Your task to perform on an android device: What time is it in Berlin? Image 0: 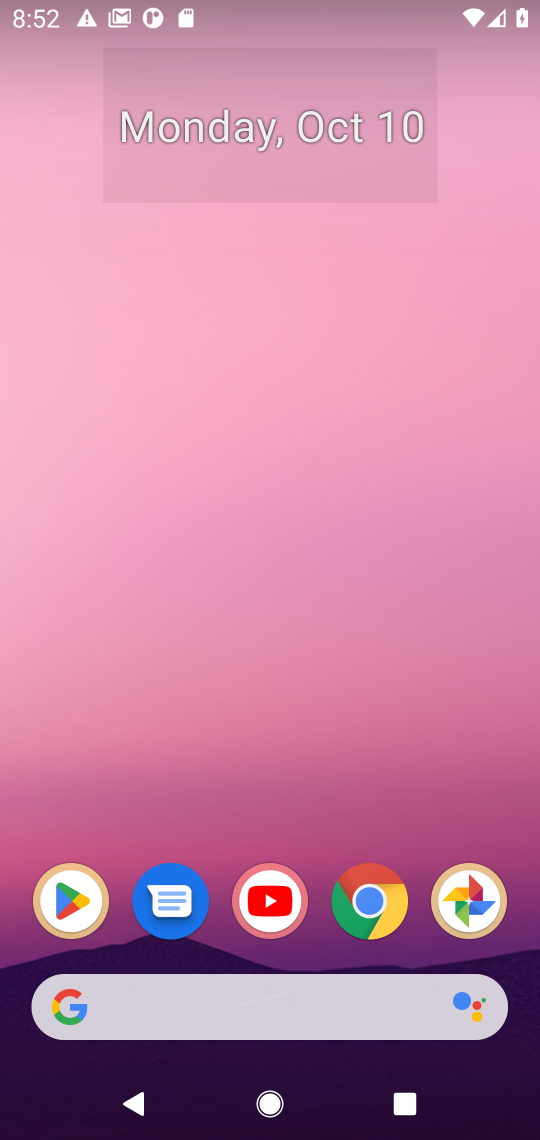
Step 0: press home button
Your task to perform on an android device: What time is it in Berlin? Image 1: 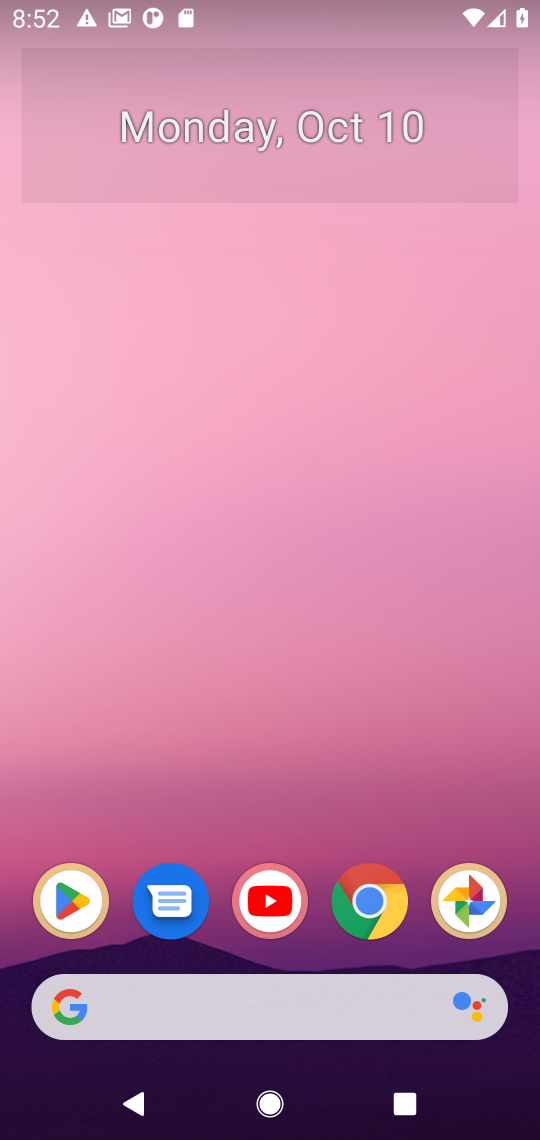
Step 1: click (275, 1009)
Your task to perform on an android device: What time is it in Berlin? Image 2: 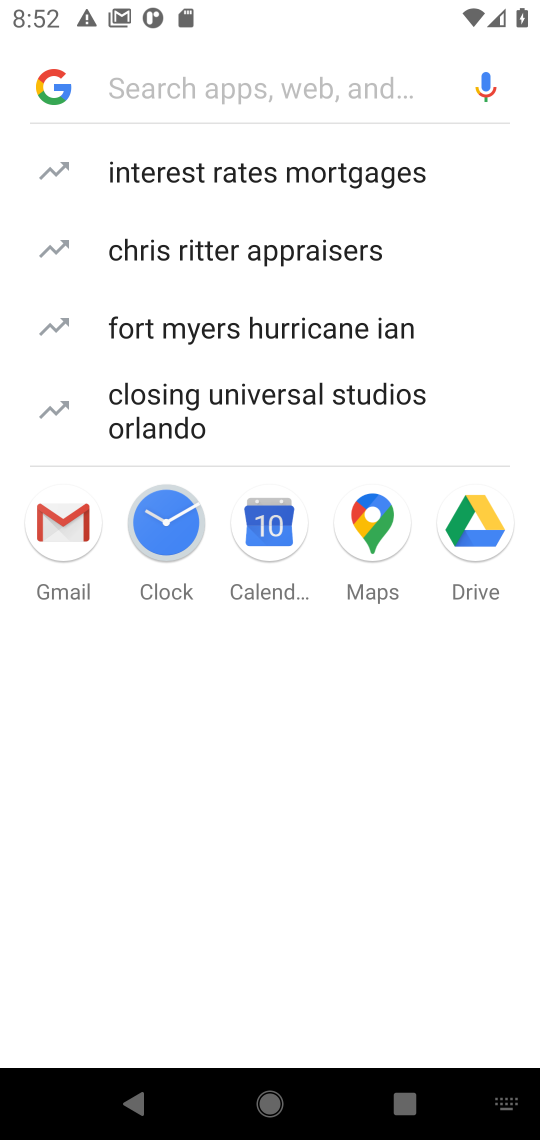
Step 2: type "What time is it in Berlin"
Your task to perform on an android device: What time is it in Berlin? Image 3: 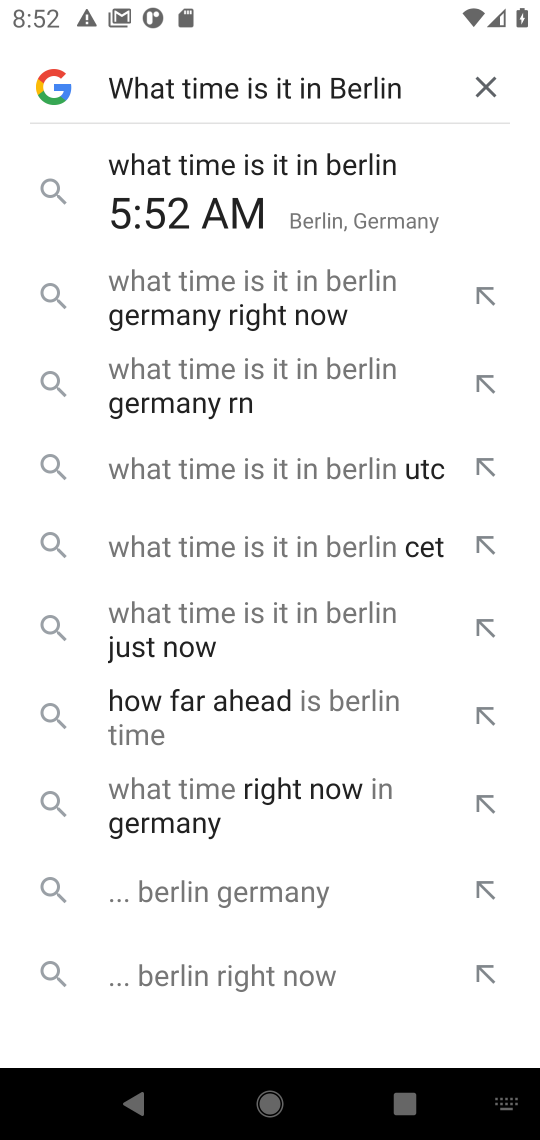
Step 3: press enter
Your task to perform on an android device: What time is it in Berlin? Image 4: 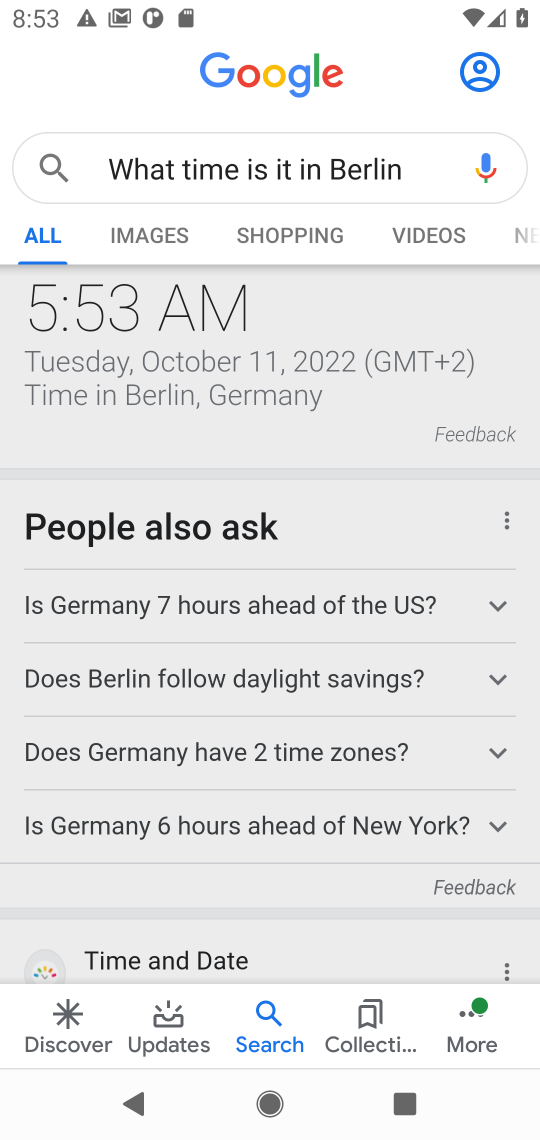
Step 4: task complete